Your task to perform on an android device: delete a single message in the gmail app Image 0: 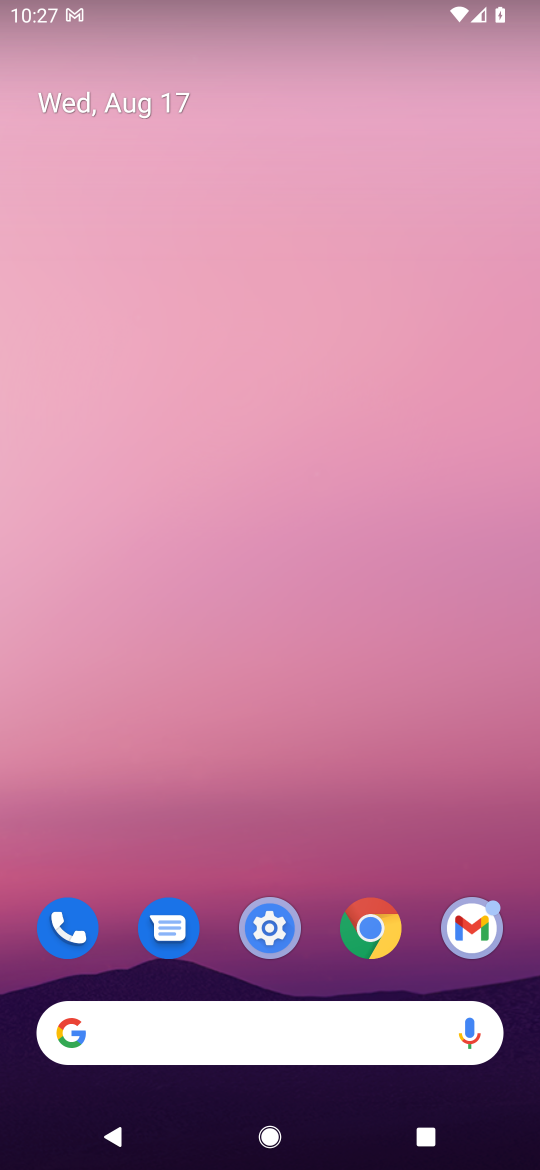
Step 0: drag from (479, 824) to (413, 337)
Your task to perform on an android device: delete a single message in the gmail app Image 1: 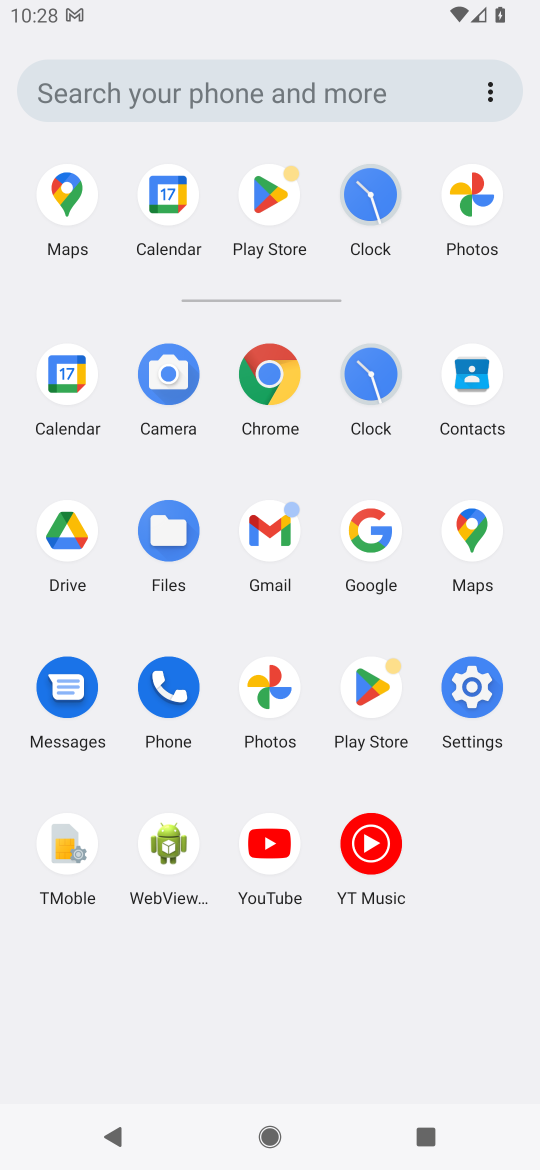
Step 1: click (267, 535)
Your task to perform on an android device: delete a single message in the gmail app Image 2: 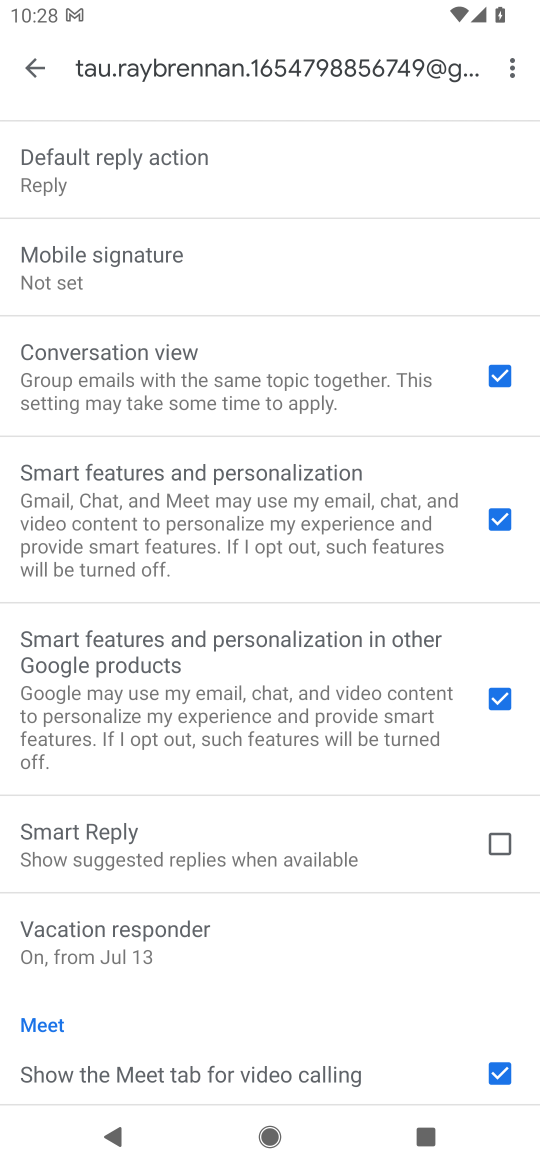
Step 2: click (36, 67)
Your task to perform on an android device: delete a single message in the gmail app Image 3: 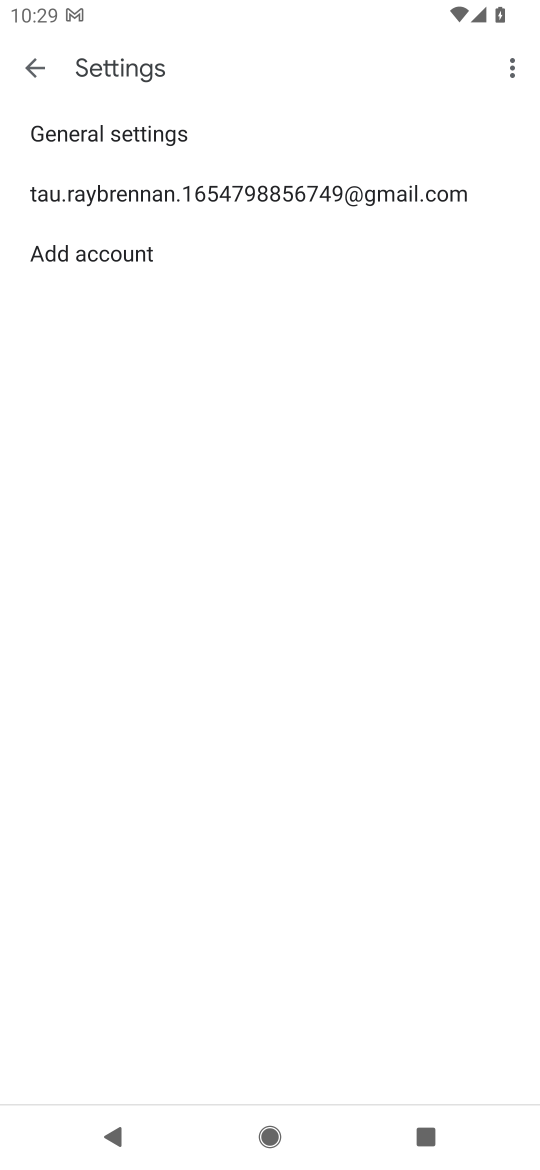
Step 3: click (36, 67)
Your task to perform on an android device: delete a single message in the gmail app Image 4: 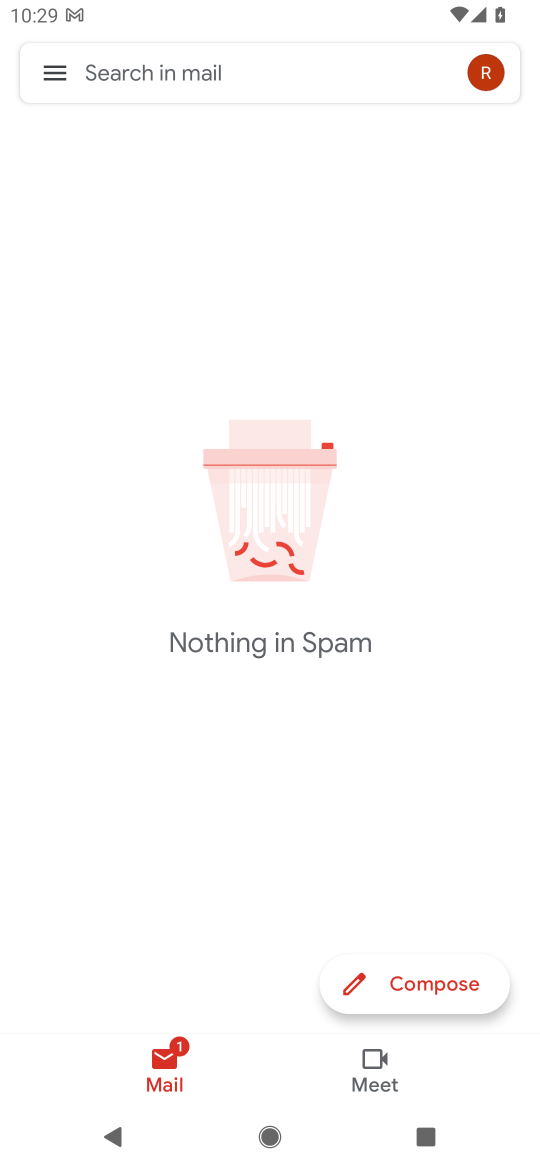
Step 4: click (57, 73)
Your task to perform on an android device: delete a single message in the gmail app Image 5: 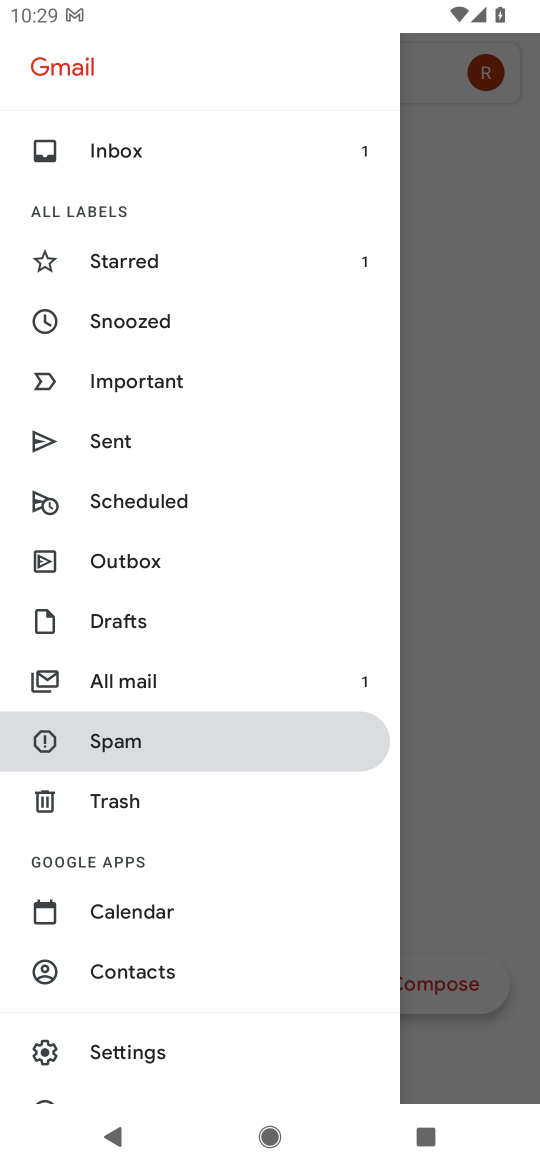
Step 5: click (144, 157)
Your task to perform on an android device: delete a single message in the gmail app Image 6: 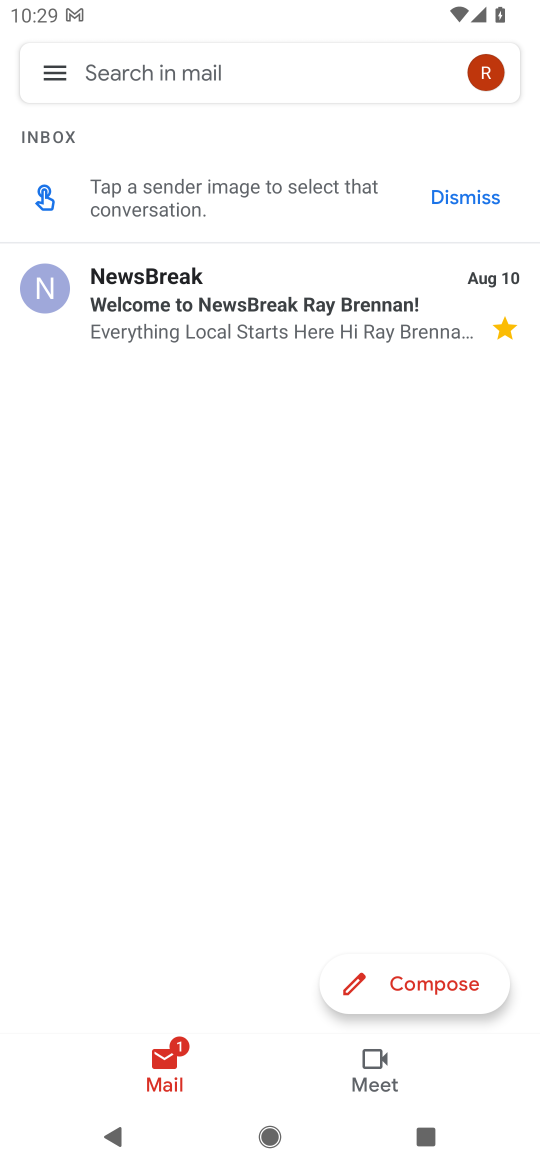
Step 6: click (51, 286)
Your task to perform on an android device: delete a single message in the gmail app Image 7: 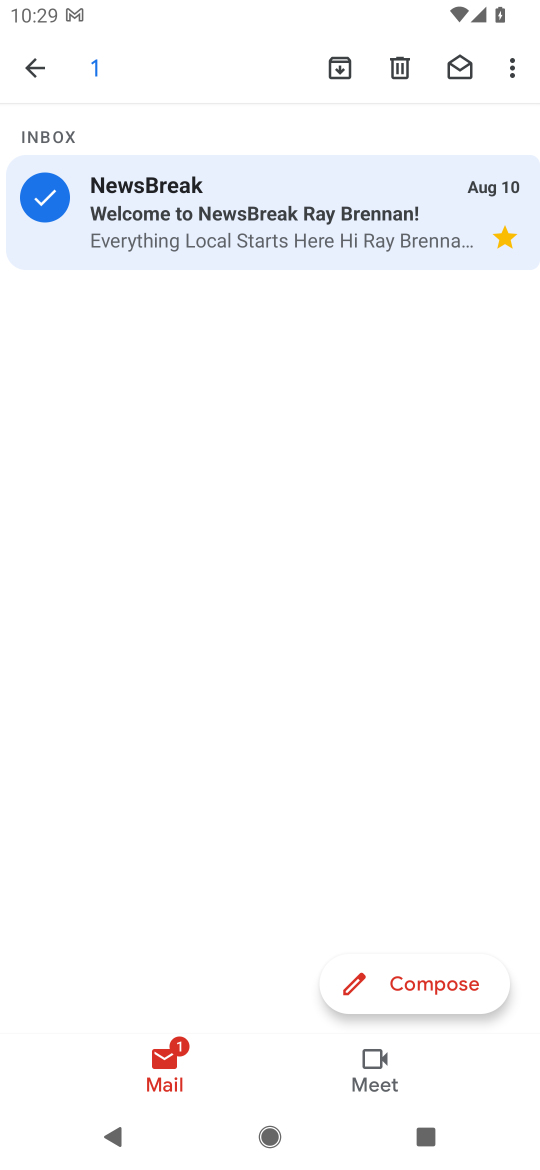
Step 7: click (396, 66)
Your task to perform on an android device: delete a single message in the gmail app Image 8: 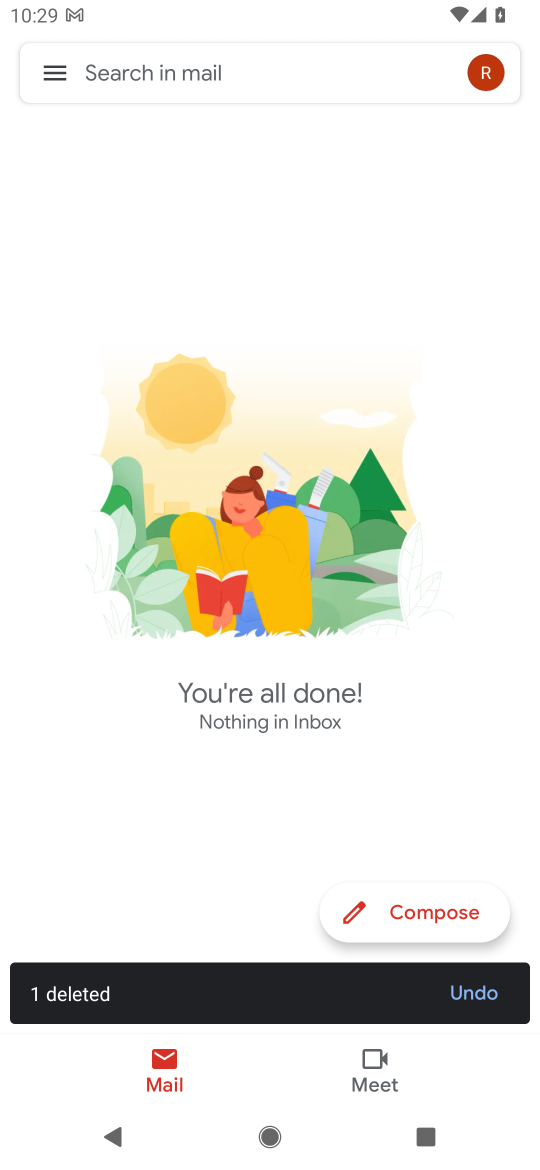
Step 8: task complete